Your task to perform on an android device: Open Google Maps and go to "Timeline" Image 0: 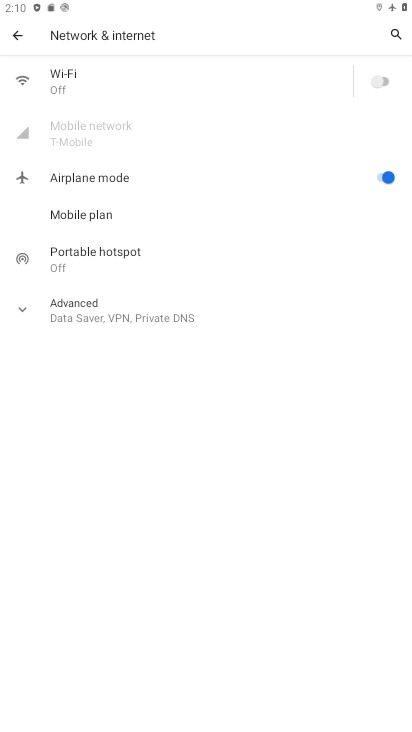
Step 0: press home button
Your task to perform on an android device: Open Google Maps and go to "Timeline" Image 1: 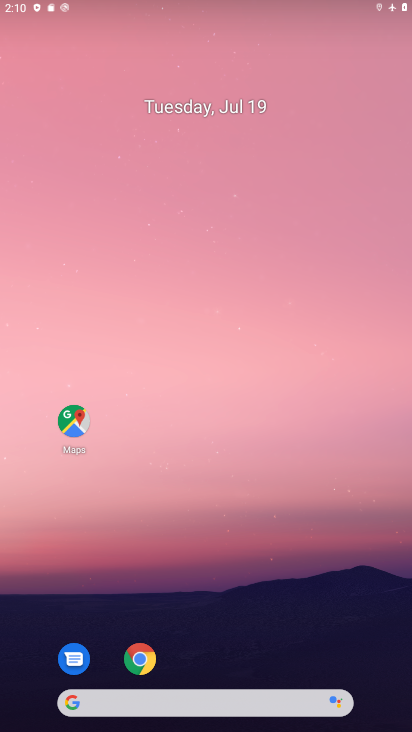
Step 1: drag from (212, 693) to (182, 18)
Your task to perform on an android device: Open Google Maps and go to "Timeline" Image 2: 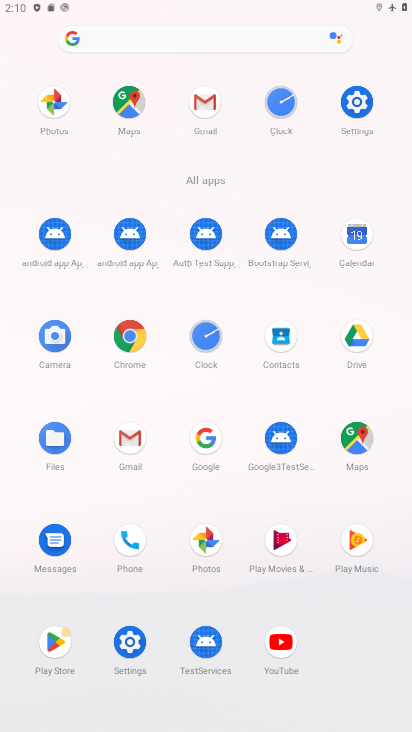
Step 2: click (130, 98)
Your task to perform on an android device: Open Google Maps and go to "Timeline" Image 3: 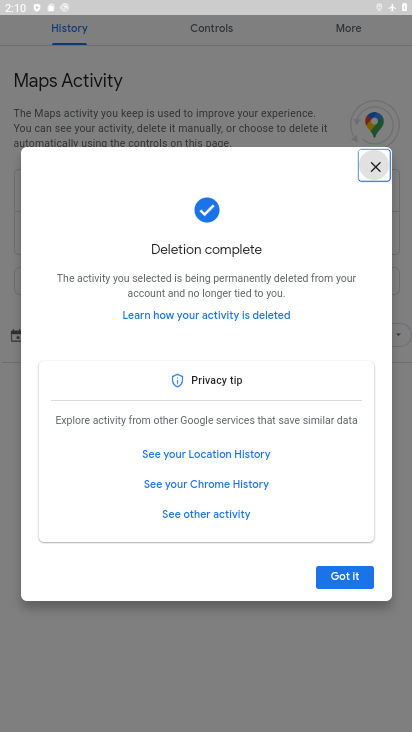
Step 3: click (352, 574)
Your task to perform on an android device: Open Google Maps and go to "Timeline" Image 4: 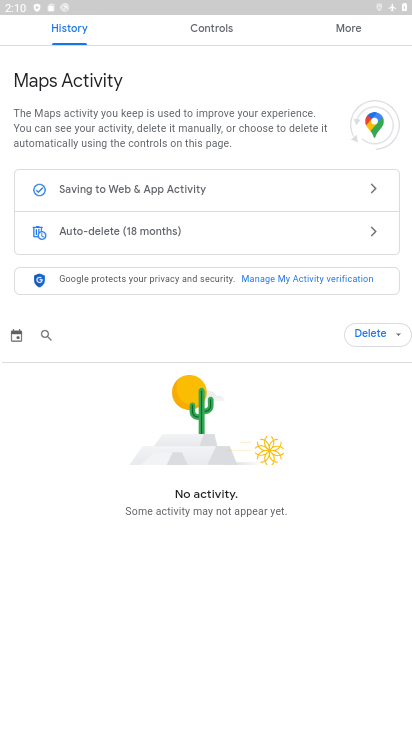
Step 4: press back button
Your task to perform on an android device: Open Google Maps and go to "Timeline" Image 5: 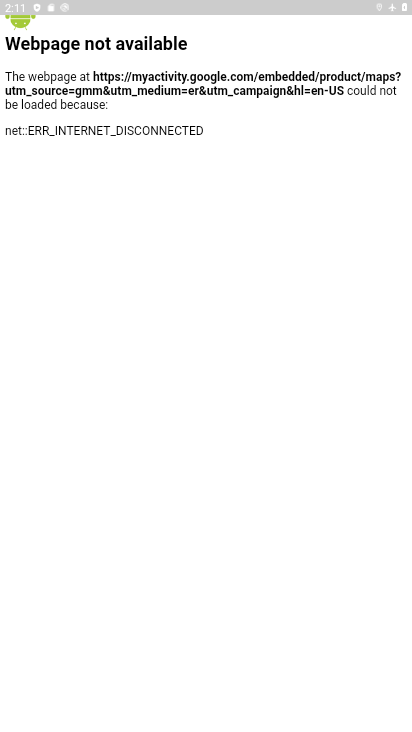
Step 5: press back button
Your task to perform on an android device: Open Google Maps and go to "Timeline" Image 6: 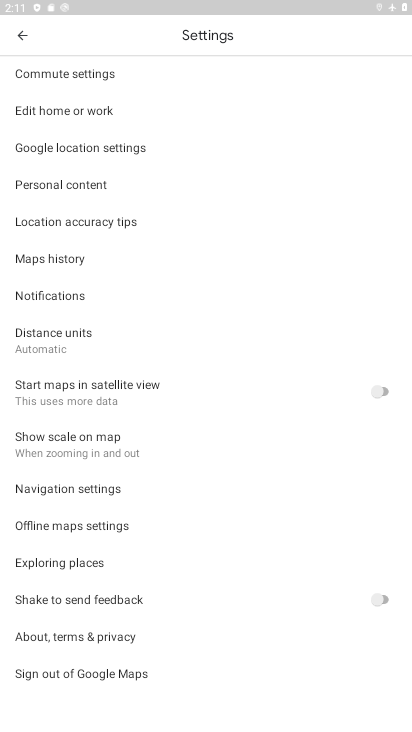
Step 6: press back button
Your task to perform on an android device: Open Google Maps and go to "Timeline" Image 7: 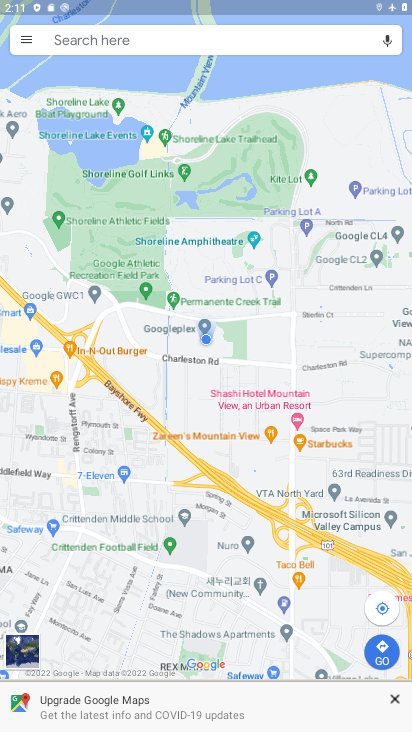
Step 7: click (19, 42)
Your task to perform on an android device: Open Google Maps and go to "Timeline" Image 8: 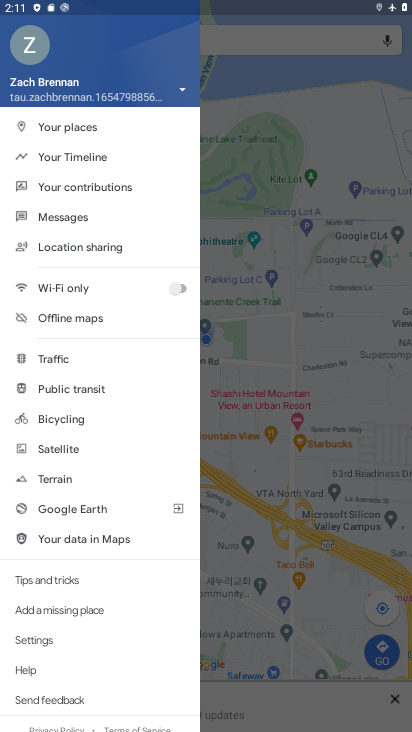
Step 8: click (85, 149)
Your task to perform on an android device: Open Google Maps and go to "Timeline" Image 9: 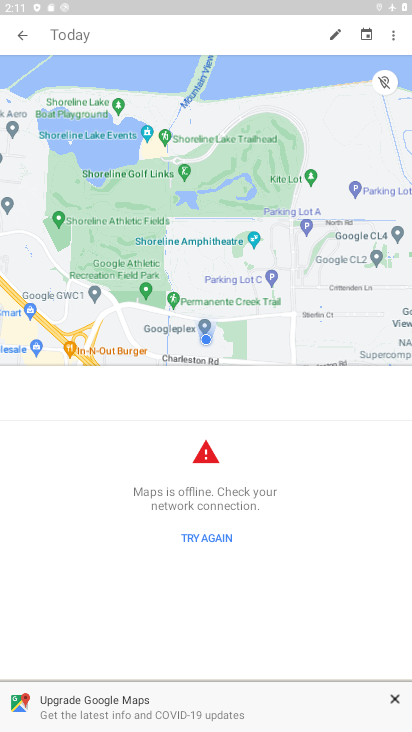
Step 9: task complete